Your task to perform on an android device: toggle location history Image 0: 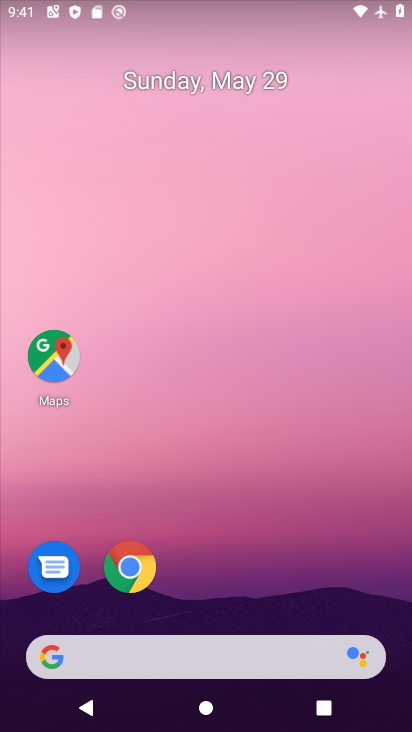
Step 0: click (55, 355)
Your task to perform on an android device: toggle location history Image 1: 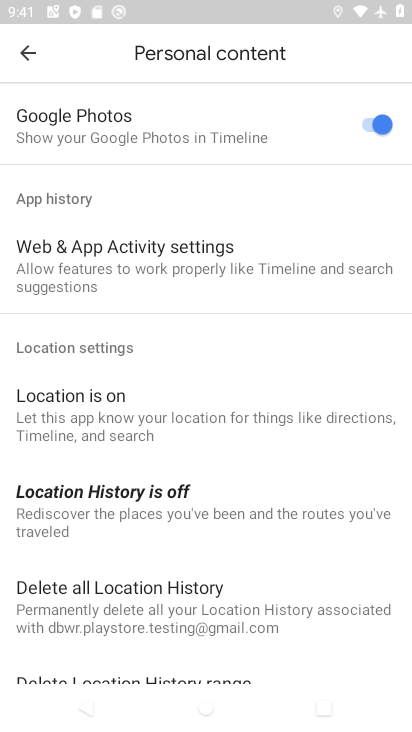
Step 1: click (98, 479)
Your task to perform on an android device: toggle location history Image 2: 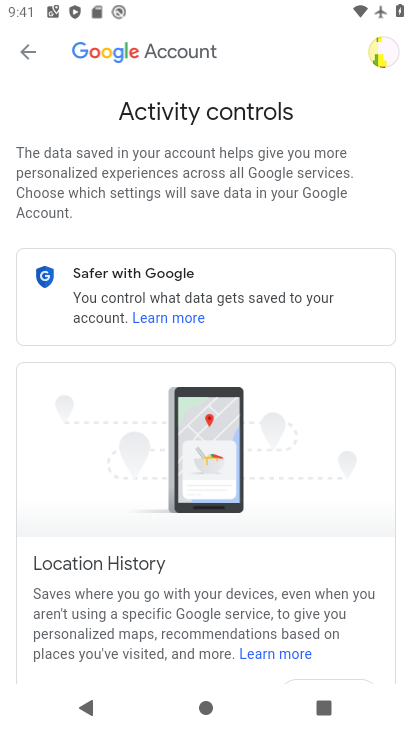
Step 2: drag from (333, 570) to (306, 246)
Your task to perform on an android device: toggle location history Image 3: 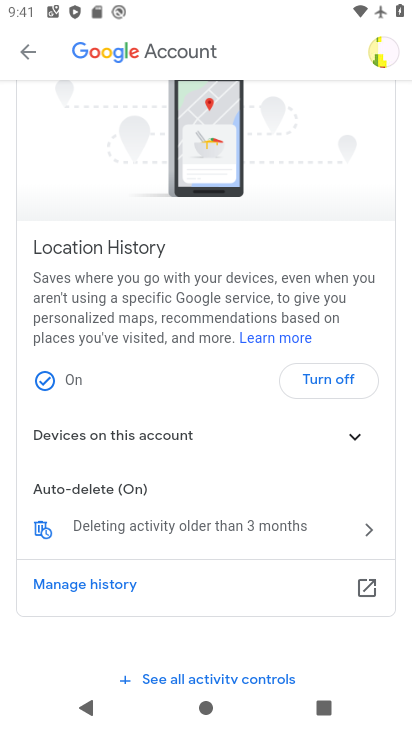
Step 3: click (330, 385)
Your task to perform on an android device: toggle location history Image 4: 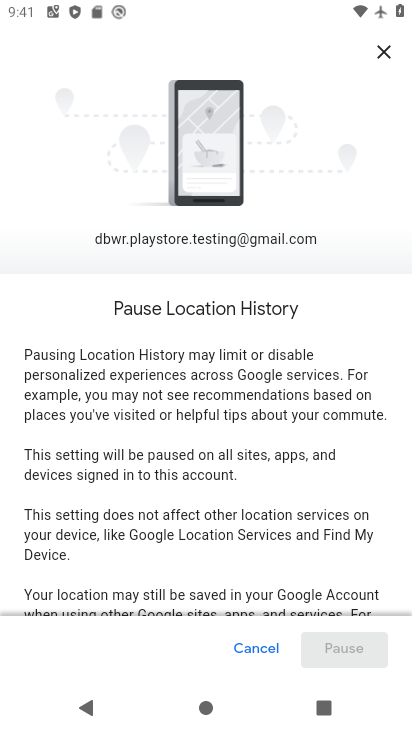
Step 4: drag from (295, 559) to (268, 87)
Your task to perform on an android device: toggle location history Image 5: 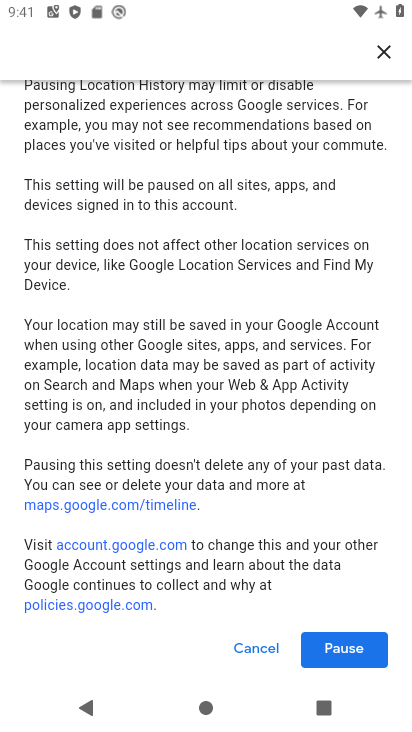
Step 5: click (342, 652)
Your task to perform on an android device: toggle location history Image 6: 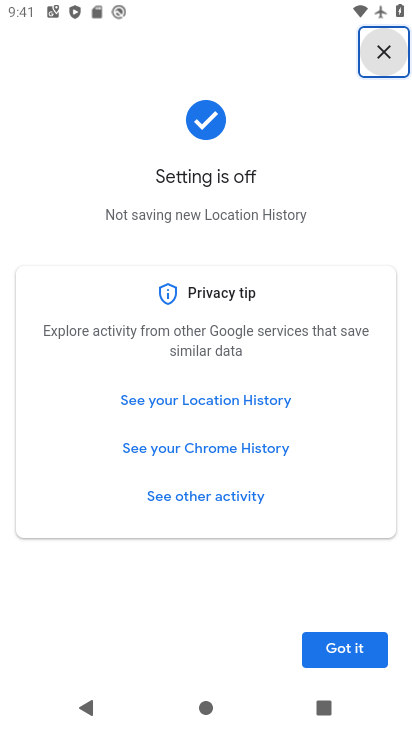
Step 6: click (350, 647)
Your task to perform on an android device: toggle location history Image 7: 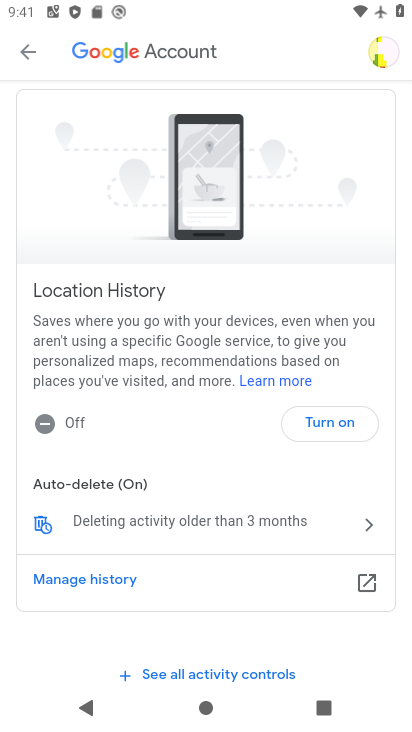
Step 7: task complete